Your task to perform on an android device: turn off smart reply in the gmail app Image 0: 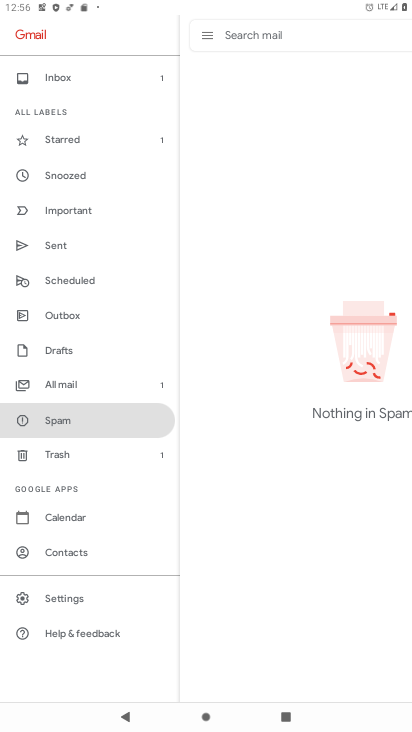
Step 0: click (47, 598)
Your task to perform on an android device: turn off smart reply in the gmail app Image 1: 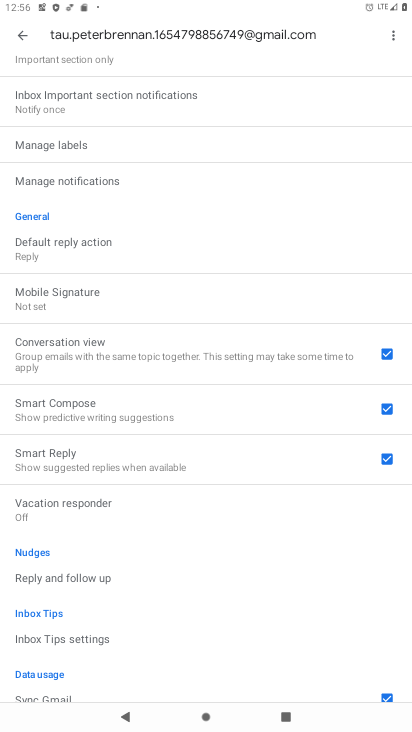
Step 1: click (393, 458)
Your task to perform on an android device: turn off smart reply in the gmail app Image 2: 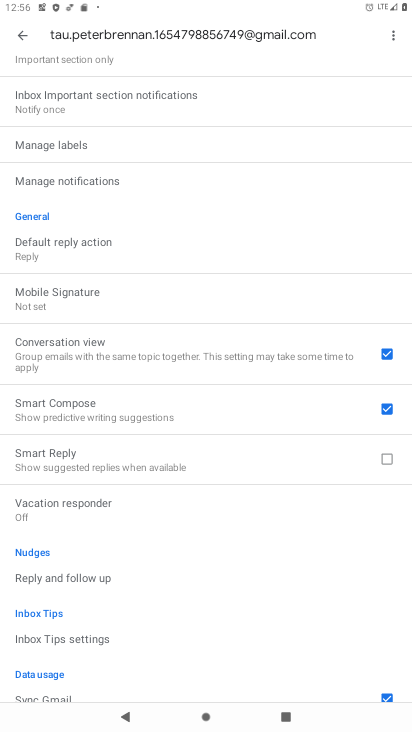
Step 2: task complete